Your task to perform on an android device: uninstall "LinkedIn" Image 0: 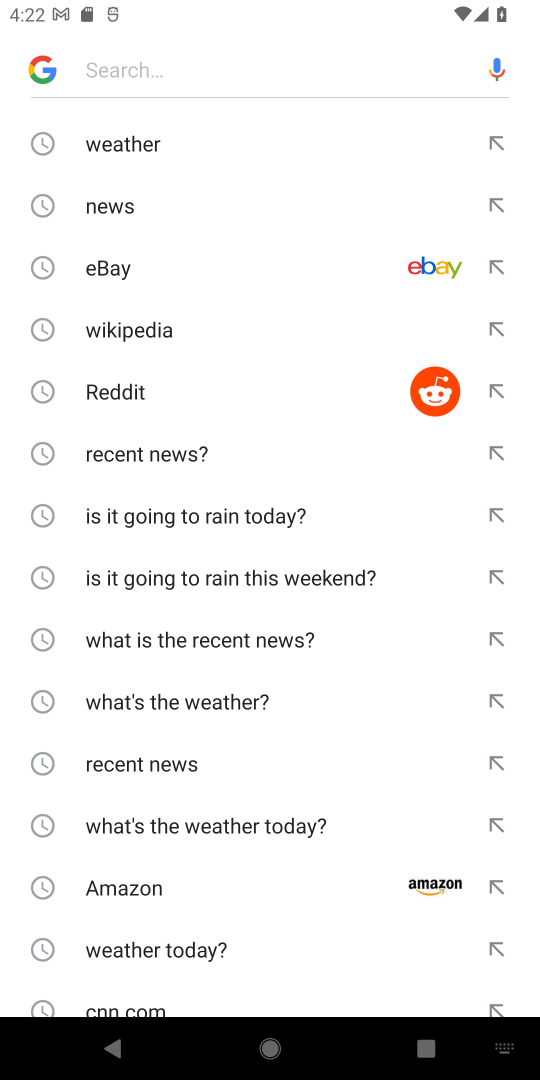
Step 0: press home button
Your task to perform on an android device: uninstall "LinkedIn" Image 1: 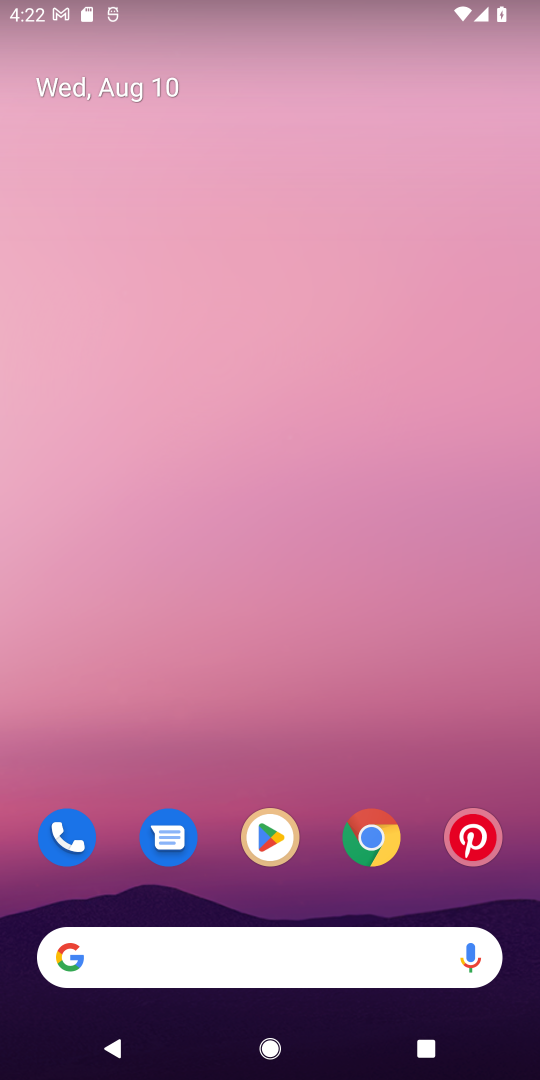
Step 1: click (257, 833)
Your task to perform on an android device: uninstall "LinkedIn" Image 2: 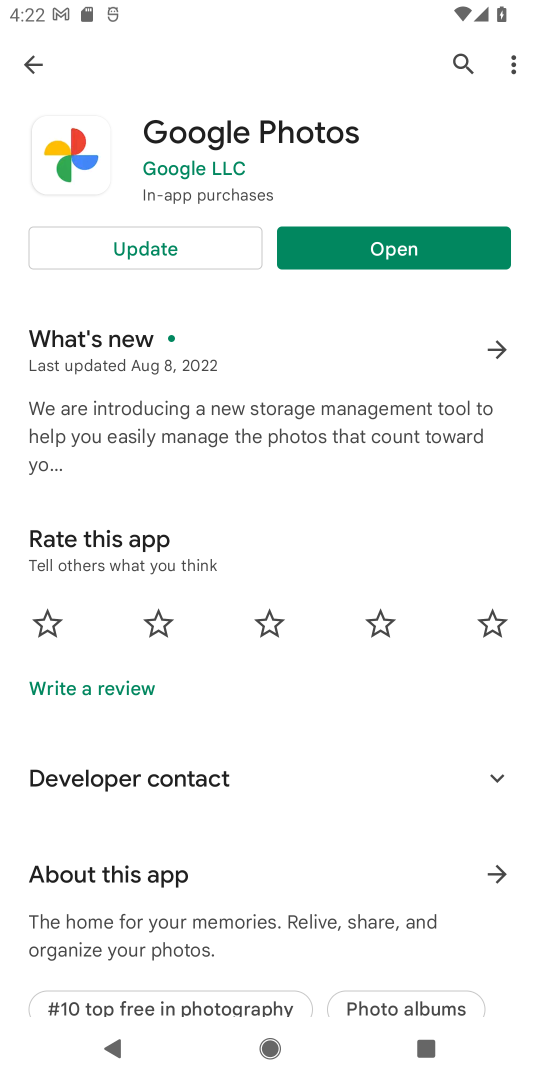
Step 2: click (461, 61)
Your task to perform on an android device: uninstall "LinkedIn" Image 3: 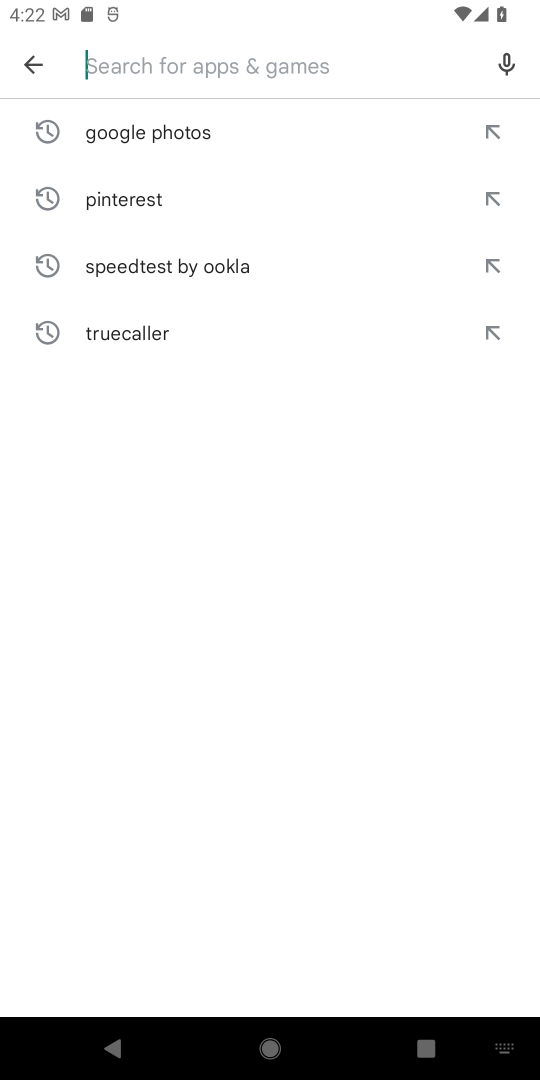
Step 3: type "LinkedIn"
Your task to perform on an android device: uninstall "LinkedIn" Image 4: 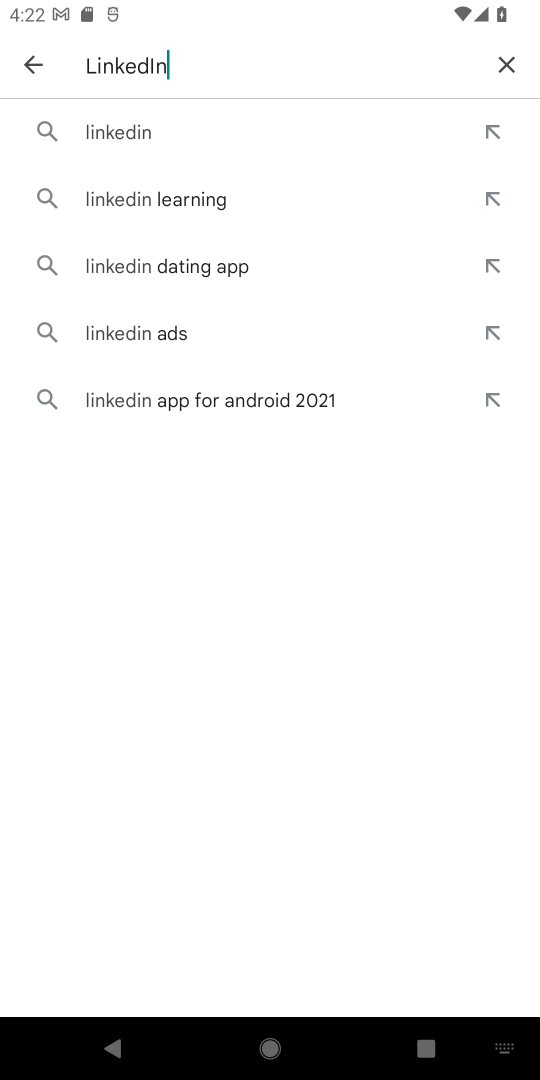
Step 4: click (140, 123)
Your task to perform on an android device: uninstall "LinkedIn" Image 5: 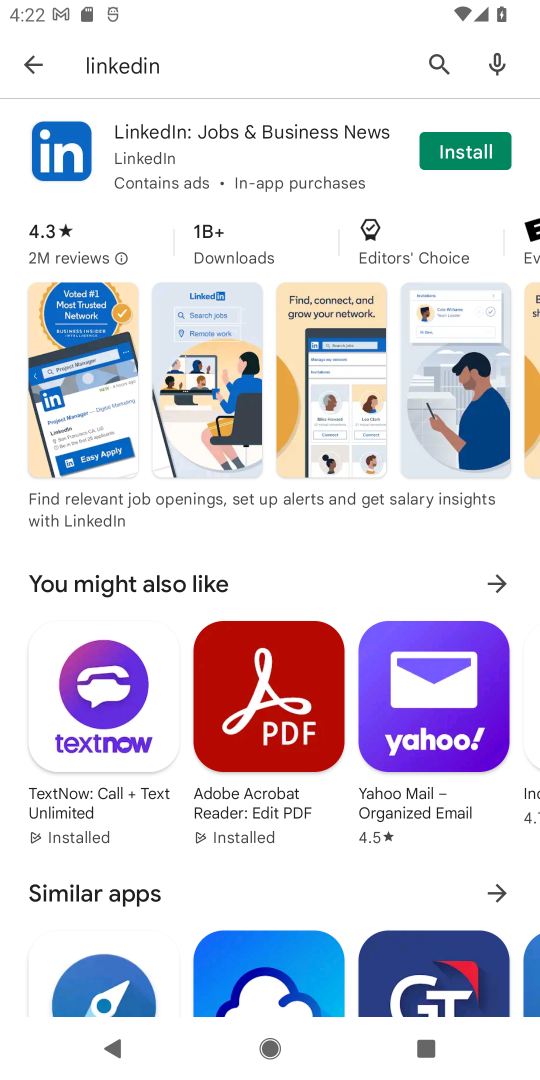
Step 5: task complete